Your task to perform on an android device: Open settings on Google Maps Image 0: 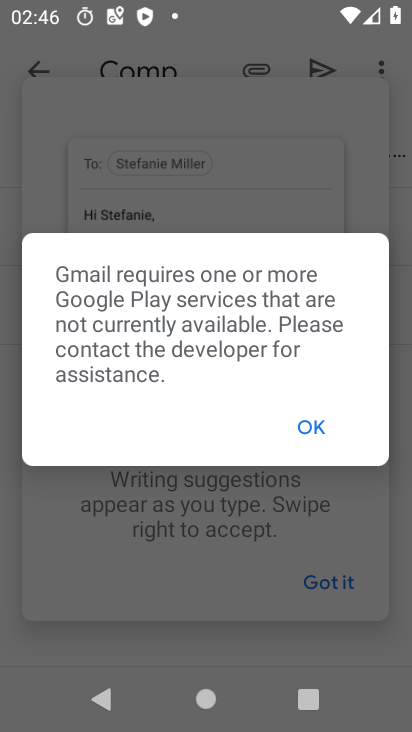
Step 0: press home button
Your task to perform on an android device: Open settings on Google Maps Image 1: 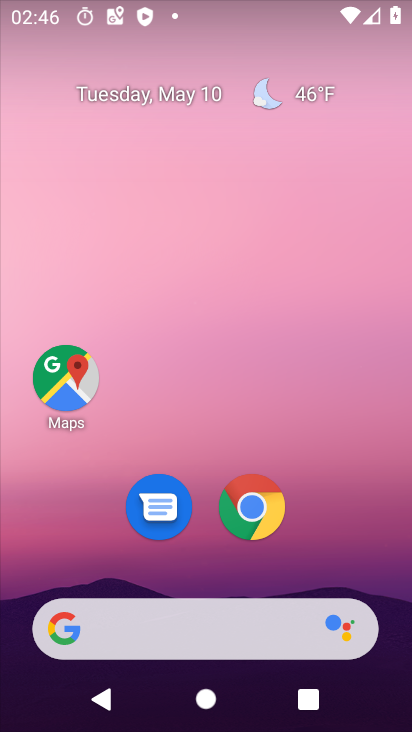
Step 1: drag from (239, 663) to (267, 179)
Your task to perform on an android device: Open settings on Google Maps Image 2: 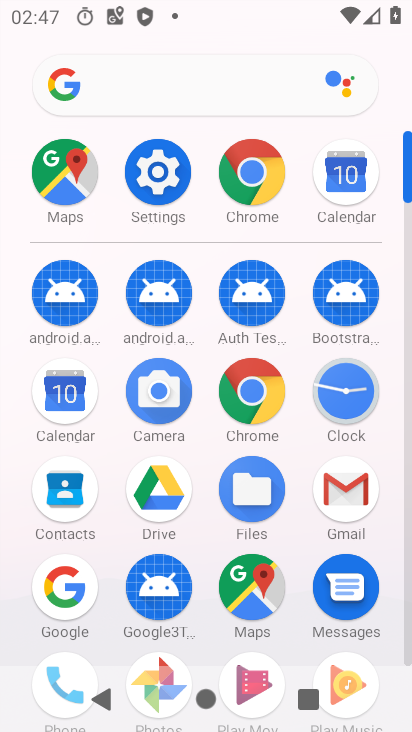
Step 2: click (70, 161)
Your task to perform on an android device: Open settings on Google Maps Image 3: 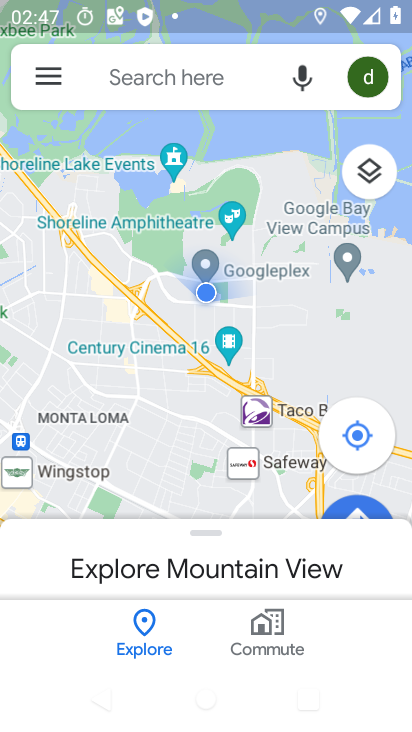
Step 3: click (29, 72)
Your task to perform on an android device: Open settings on Google Maps Image 4: 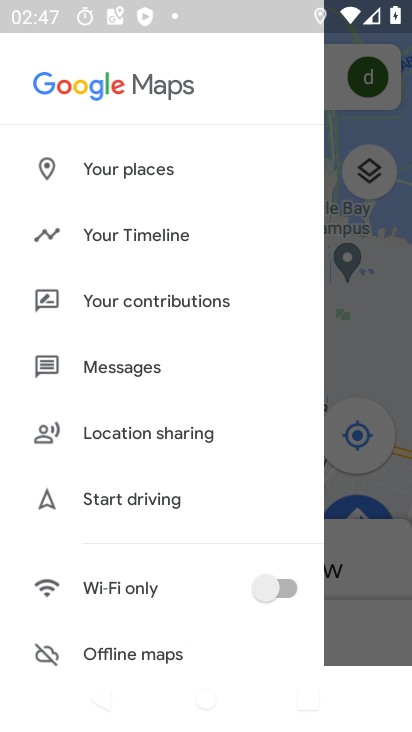
Step 4: drag from (120, 494) to (203, 301)
Your task to perform on an android device: Open settings on Google Maps Image 5: 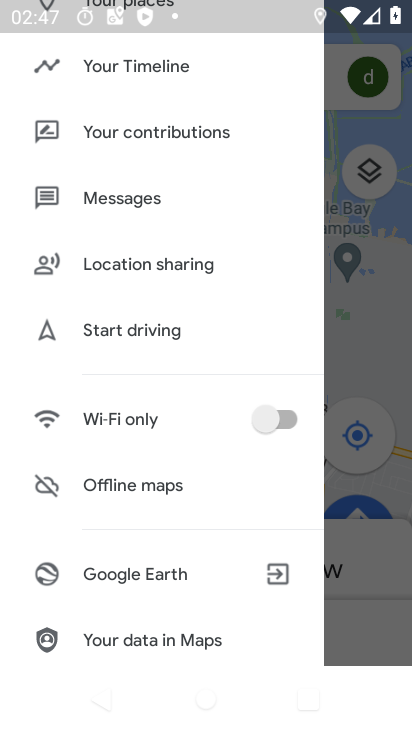
Step 5: drag from (125, 516) to (191, 312)
Your task to perform on an android device: Open settings on Google Maps Image 6: 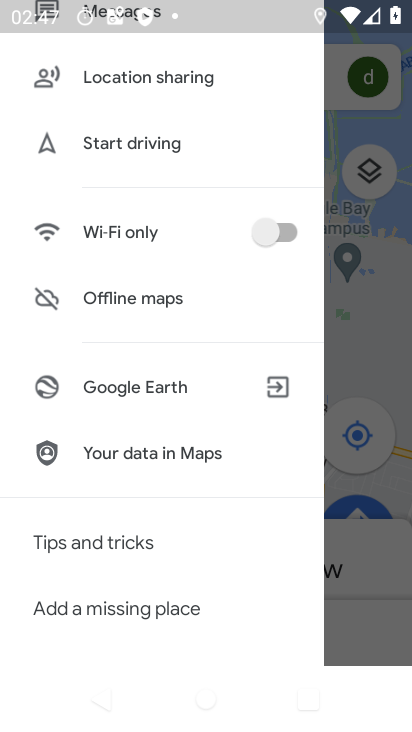
Step 6: drag from (107, 559) to (145, 431)
Your task to perform on an android device: Open settings on Google Maps Image 7: 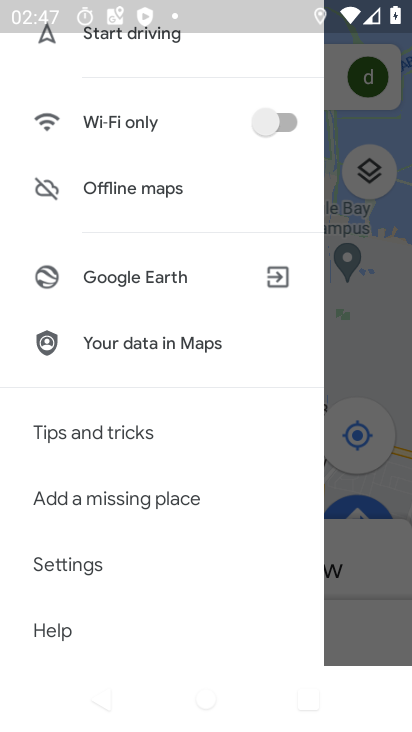
Step 7: click (81, 569)
Your task to perform on an android device: Open settings on Google Maps Image 8: 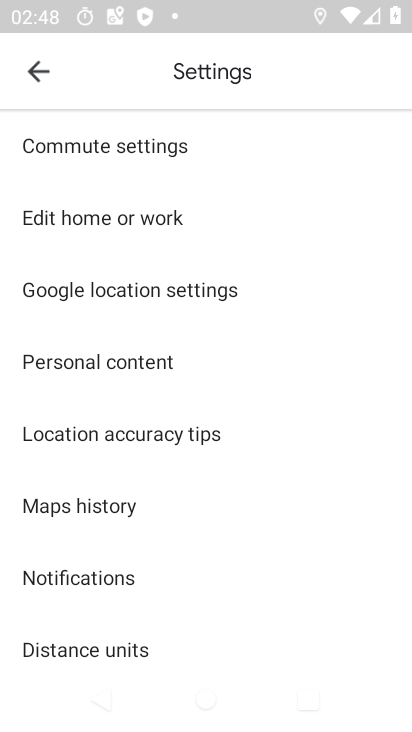
Step 8: task complete